Your task to perform on an android device: Search for "bose quietcomfort 35" on target, select the first entry, and add it to the cart. Image 0: 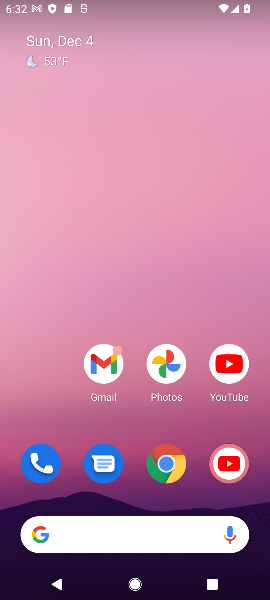
Step 0: click (142, 537)
Your task to perform on an android device: Search for "bose quietcomfort 35" on target, select the first entry, and add it to the cart. Image 1: 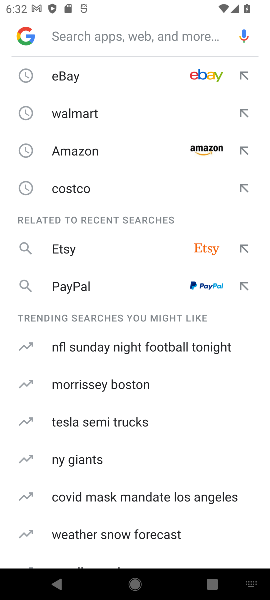
Step 1: type "target"
Your task to perform on an android device: Search for "bose quietcomfort 35" on target, select the first entry, and add it to the cart. Image 2: 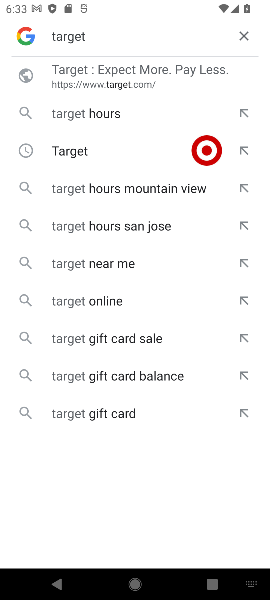
Step 2: click (56, 64)
Your task to perform on an android device: Search for "bose quietcomfort 35" on target, select the first entry, and add it to the cart. Image 3: 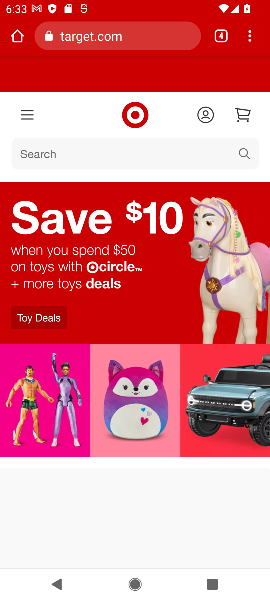
Step 3: click (81, 146)
Your task to perform on an android device: Search for "bose quietcomfort 35" on target, select the first entry, and add it to the cart. Image 4: 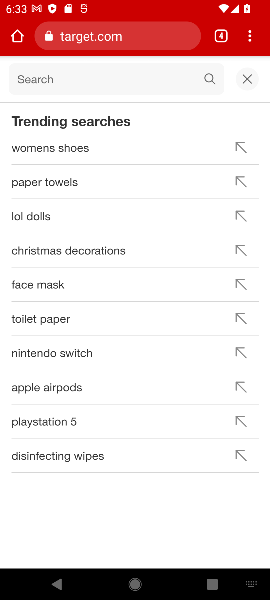
Step 4: type "bose quietcomfort 35"
Your task to perform on an android device: Search for "bose quietcomfort 35" on target, select the first entry, and add it to the cart. Image 5: 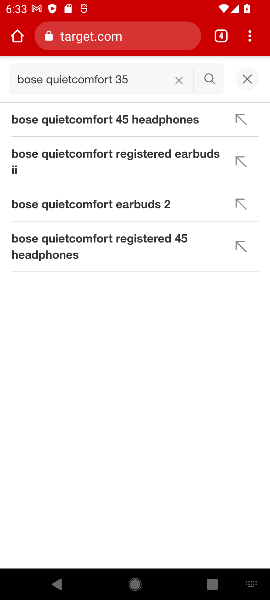
Step 5: click (216, 79)
Your task to perform on an android device: Search for "bose quietcomfort 35" on target, select the first entry, and add it to the cart. Image 6: 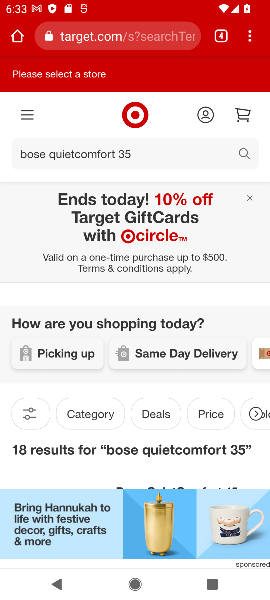
Step 6: task complete